Your task to perform on an android device: When is my next meeting? Image 0: 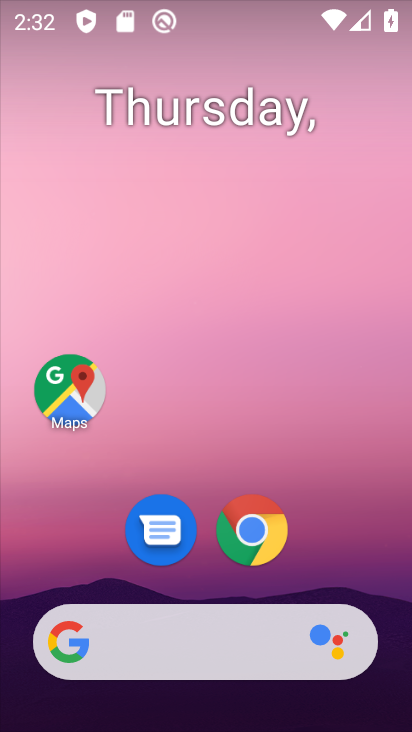
Step 0: press home button
Your task to perform on an android device: When is my next meeting? Image 1: 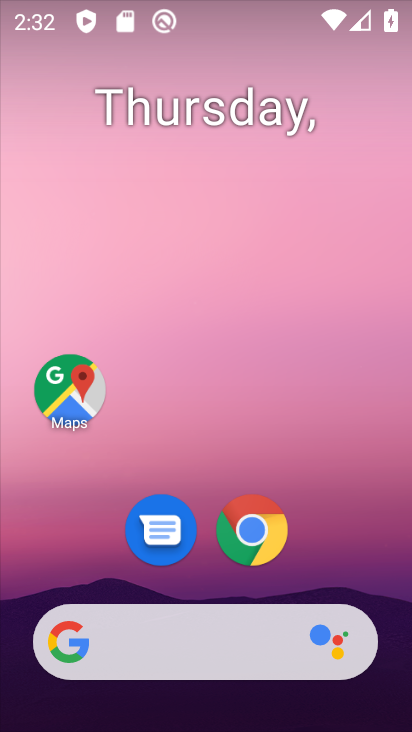
Step 1: drag from (323, 570) to (389, 154)
Your task to perform on an android device: When is my next meeting? Image 2: 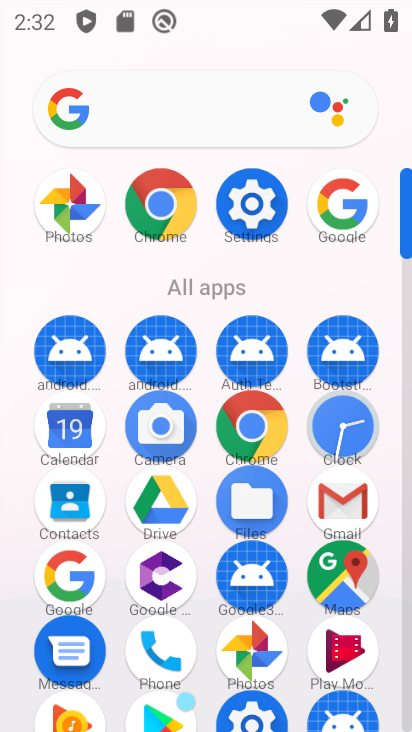
Step 2: click (402, 642)
Your task to perform on an android device: When is my next meeting? Image 3: 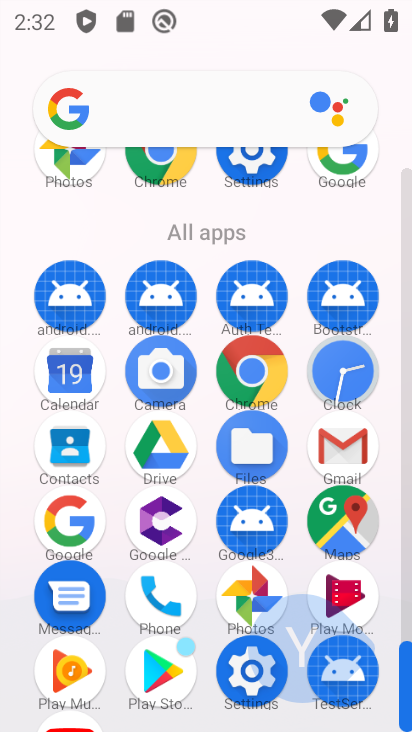
Step 3: click (402, 642)
Your task to perform on an android device: When is my next meeting? Image 4: 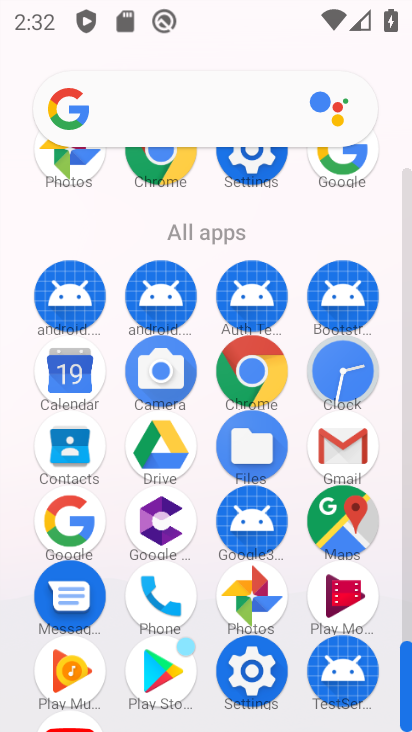
Step 4: click (402, 645)
Your task to perform on an android device: When is my next meeting? Image 5: 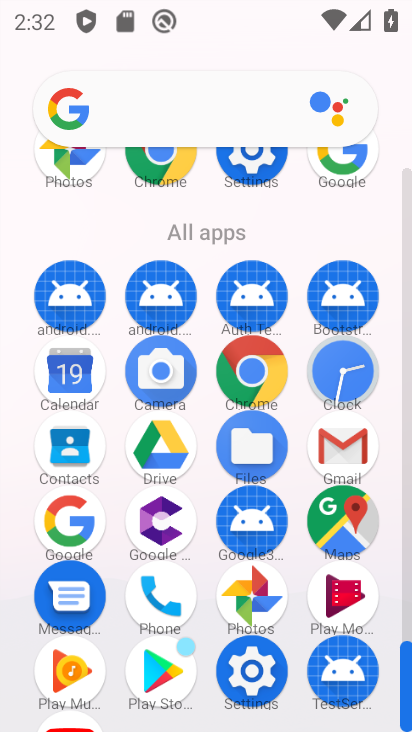
Step 5: click (402, 645)
Your task to perform on an android device: When is my next meeting? Image 6: 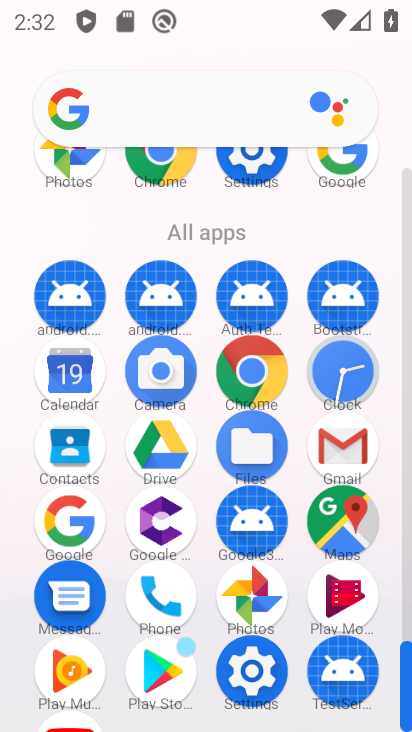
Step 6: click (403, 656)
Your task to perform on an android device: When is my next meeting? Image 7: 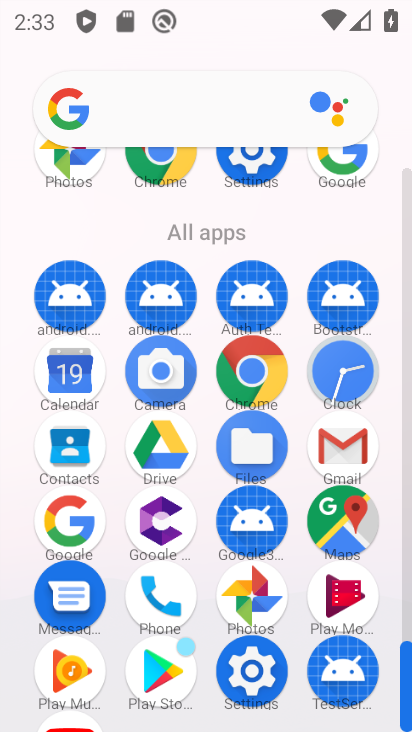
Step 7: drag from (296, 624) to (296, 458)
Your task to perform on an android device: When is my next meeting? Image 8: 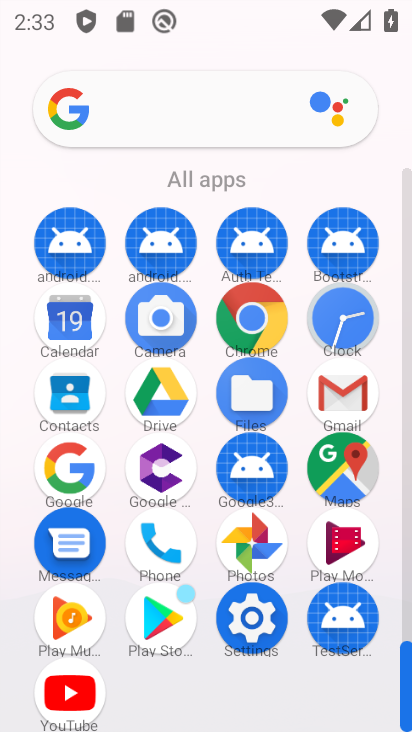
Step 8: click (88, 330)
Your task to perform on an android device: When is my next meeting? Image 9: 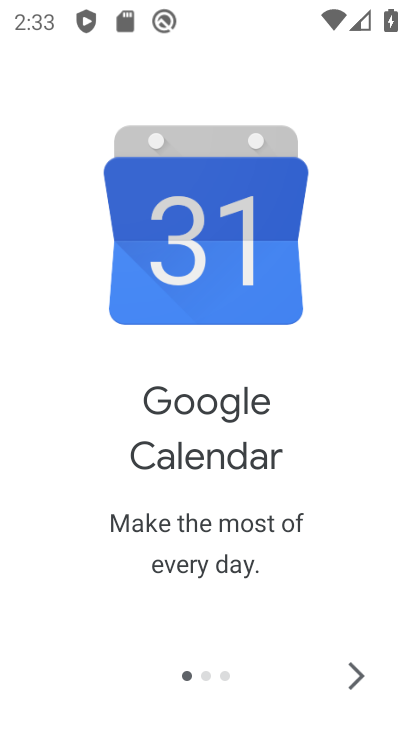
Step 9: click (356, 675)
Your task to perform on an android device: When is my next meeting? Image 10: 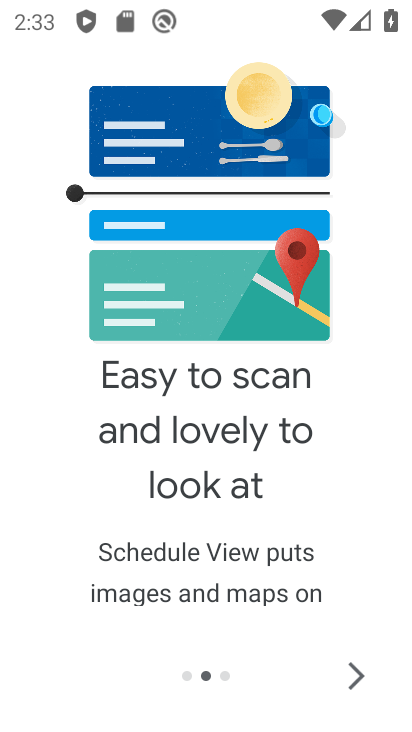
Step 10: click (356, 675)
Your task to perform on an android device: When is my next meeting? Image 11: 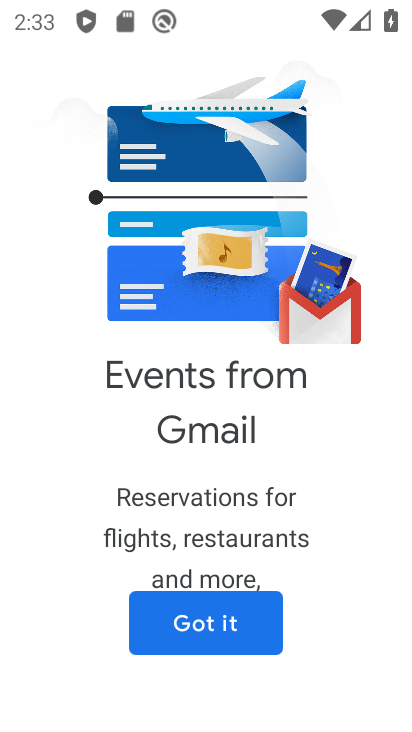
Step 11: click (215, 633)
Your task to perform on an android device: When is my next meeting? Image 12: 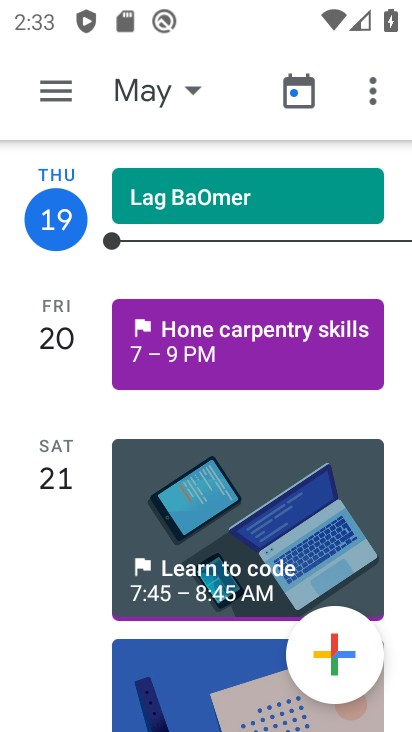
Step 12: click (189, 95)
Your task to perform on an android device: When is my next meeting? Image 13: 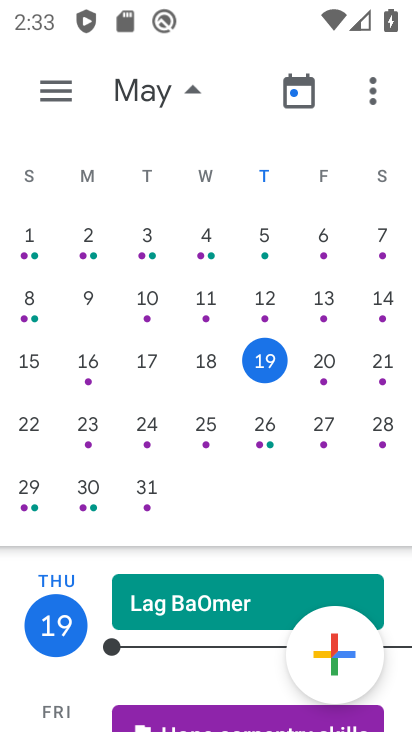
Step 13: click (167, 91)
Your task to perform on an android device: When is my next meeting? Image 14: 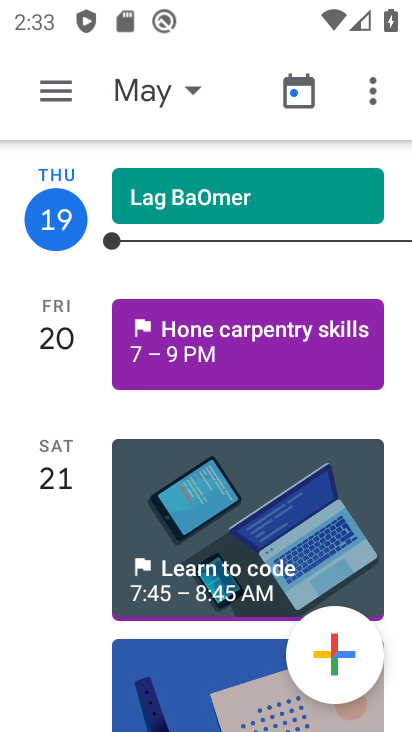
Step 14: task complete